Your task to perform on an android device: Open the phone app and click the voicemail tab. Image 0: 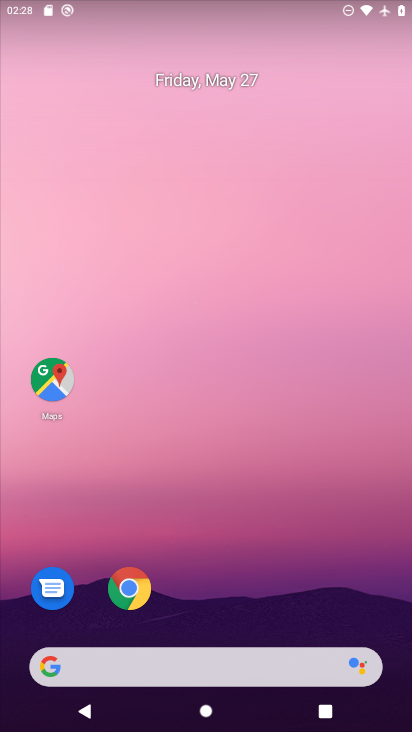
Step 0: drag from (386, 620) to (343, 79)
Your task to perform on an android device: Open the phone app and click the voicemail tab. Image 1: 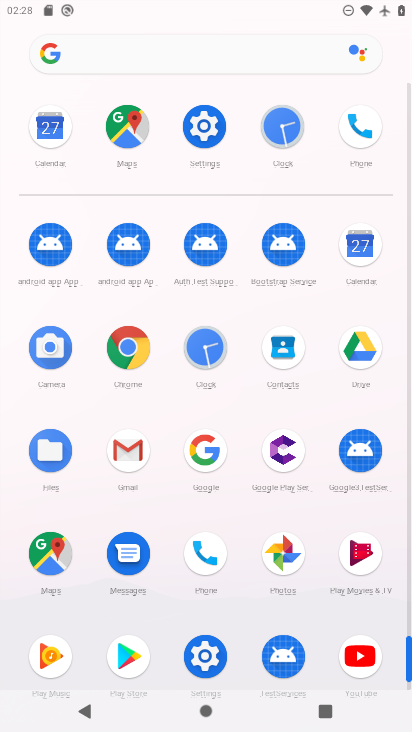
Step 1: click (409, 628)
Your task to perform on an android device: Open the phone app and click the voicemail tab. Image 2: 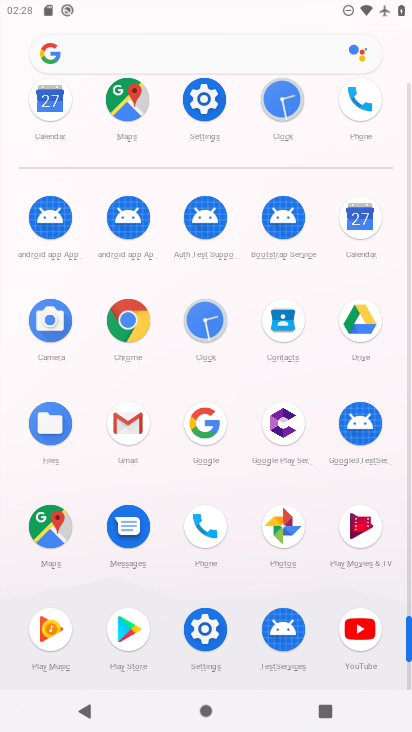
Step 2: click (201, 528)
Your task to perform on an android device: Open the phone app and click the voicemail tab. Image 3: 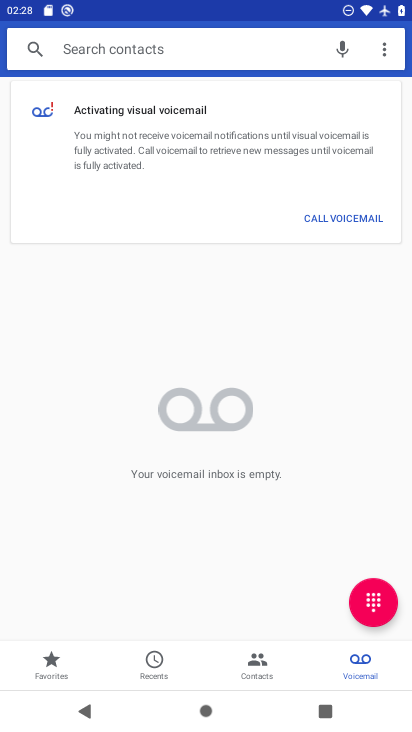
Step 3: task complete